Your task to perform on an android device: Open ESPN.com Image 0: 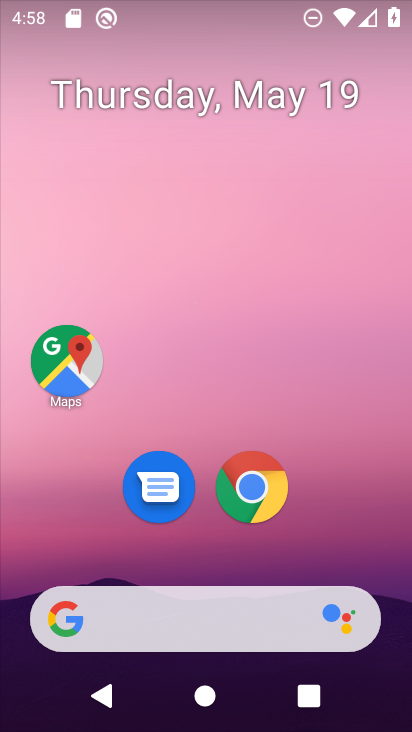
Step 0: click (253, 486)
Your task to perform on an android device: Open ESPN.com Image 1: 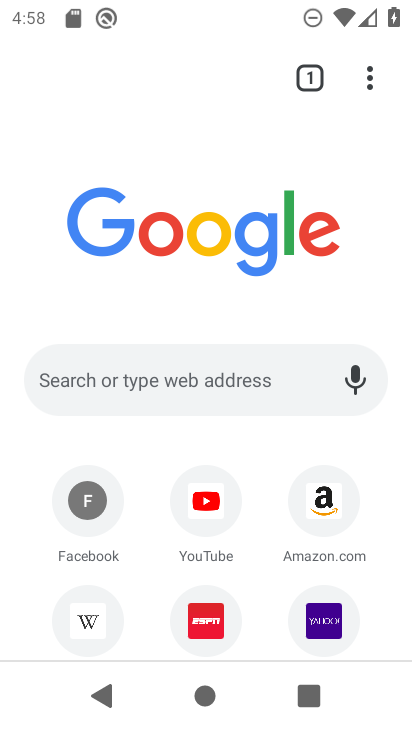
Step 1: click (218, 389)
Your task to perform on an android device: Open ESPN.com Image 2: 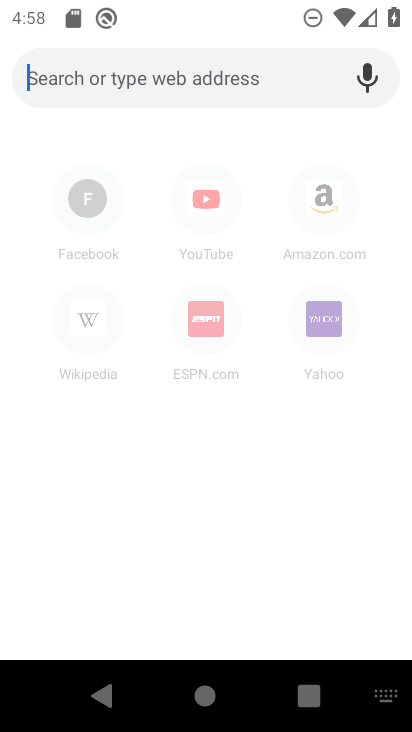
Step 2: type "ESPN.com"
Your task to perform on an android device: Open ESPN.com Image 3: 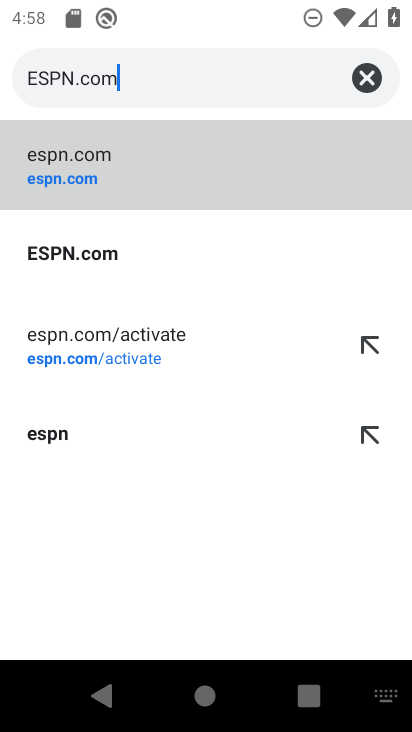
Step 3: type ""
Your task to perform on an android device: Open ESPN.com Image 4: 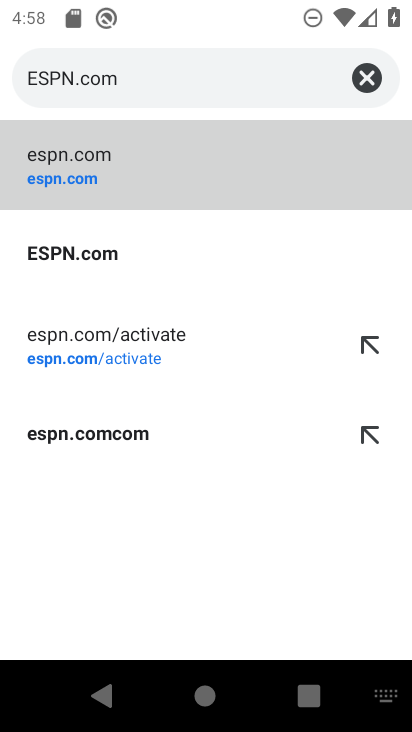
Step 4: click (97, 258)
Your task to perform on an android device: Open ESPN.com Image 5: 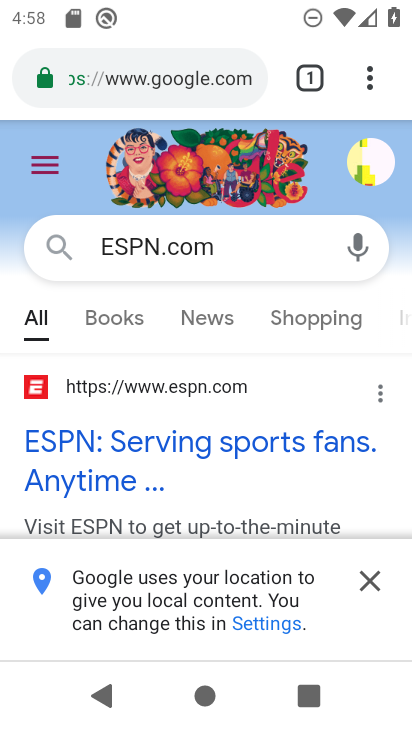
Step 5: click (369, 580)
Your task to perform on an android device: Open ESPN.com Image 6: 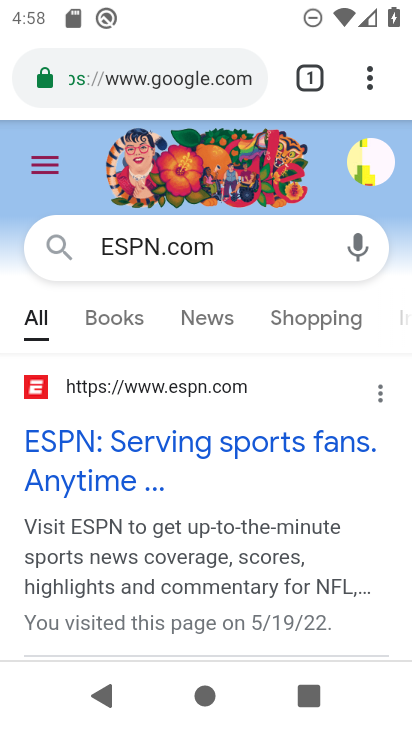
Step 6: click (186, 433)
Your task to perform on an android device: Open ESPN.com Image 7: 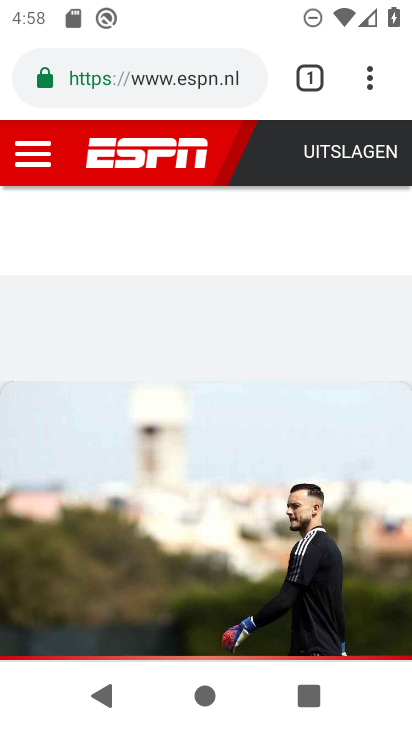
Step 7: task complete